Your task to perform on an android device: Open privacy settings Image 0: 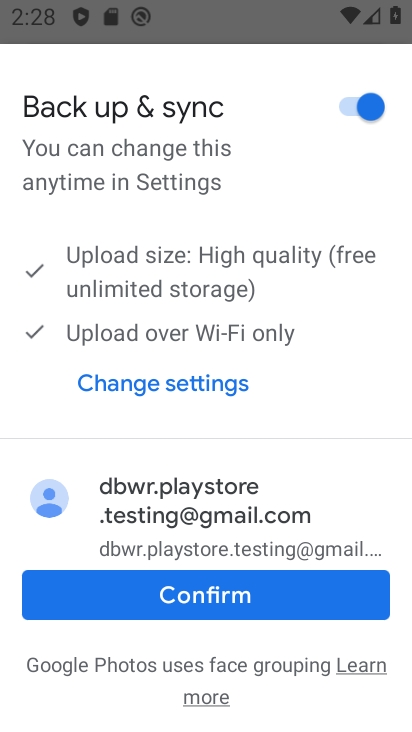
Step 0: press home button
Your task to perform on an android device: Open privacy settings Image 1: 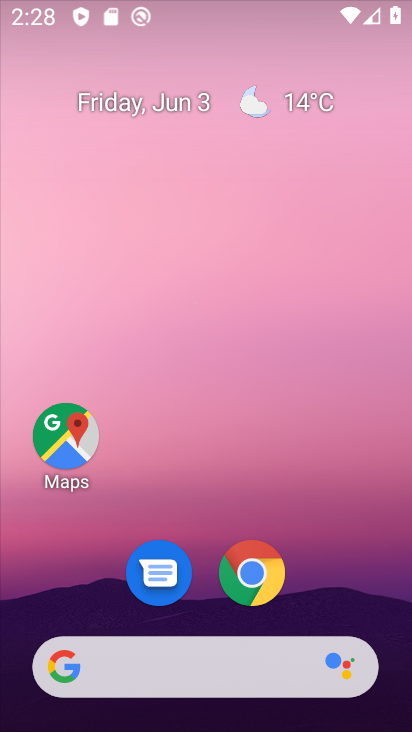
Step 1: drag from (276, 679) to (373, 0)
Your task to perform on an android device: Open privacy settings Image 2: 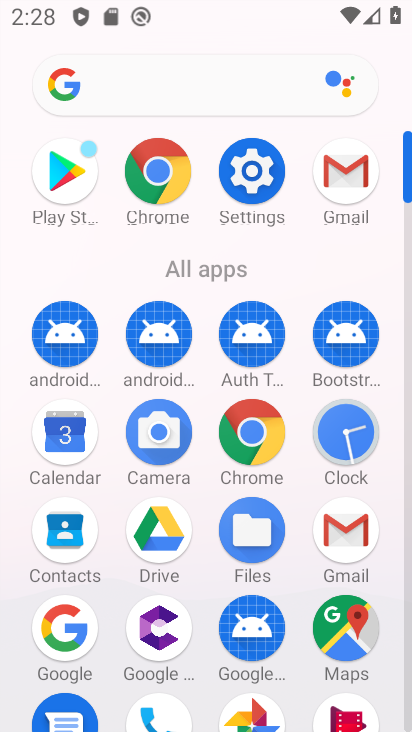
Step 2: click (272, 173)
Your task to perform on an android device: Open privacy settings Image 3: 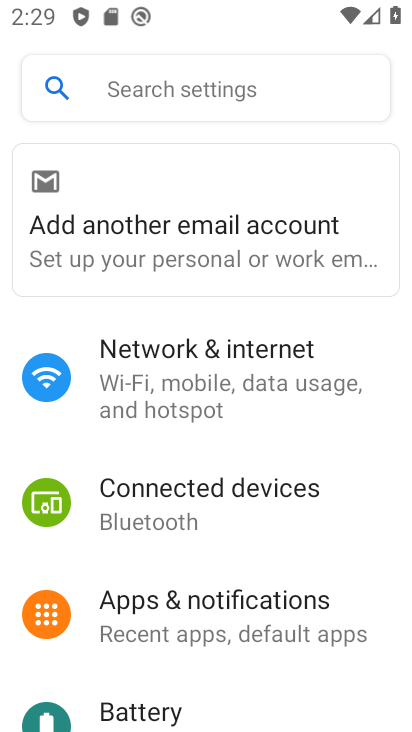
Step 3: drag from (218, 663) to (266, 288)
Your task to perform on an android device: Open privacy settings Image 4: 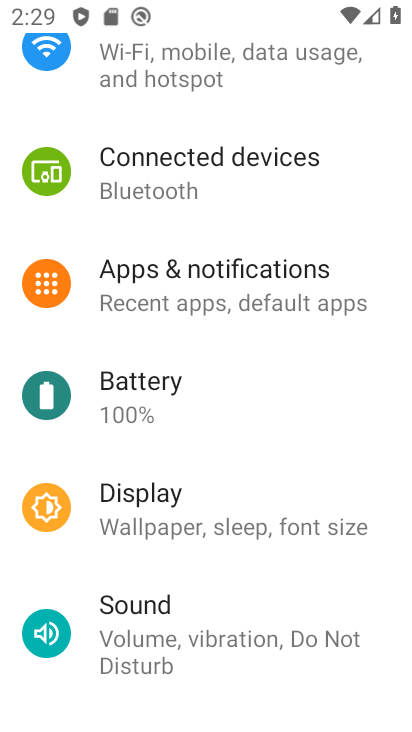
Step 4: drag from (171, 651) to (189, 222)
Your task to perform on an android device: Open privacy settings Image 5: 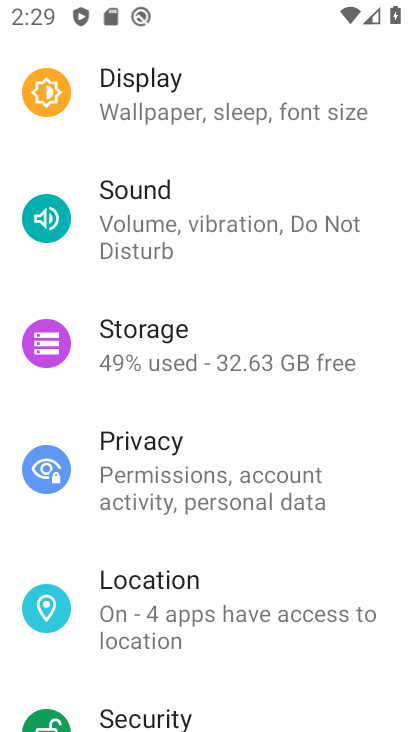
Step 5: click (196, 483)
Your task to perform on an android device: Open privacy settings Image 6: 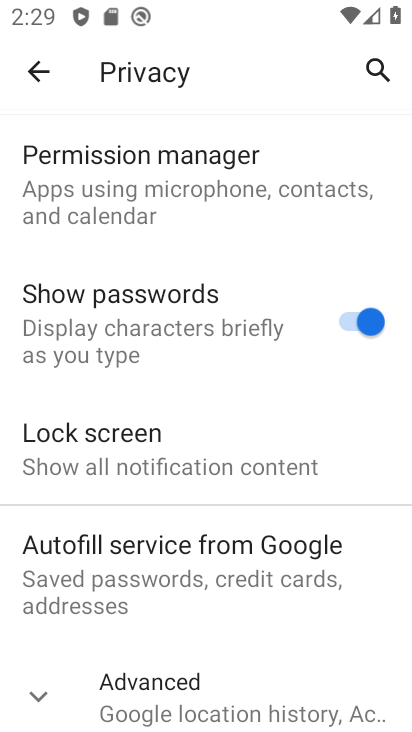
Step 6: task complete